Your task to perform on an android device: change alarm snooze length Image 0: 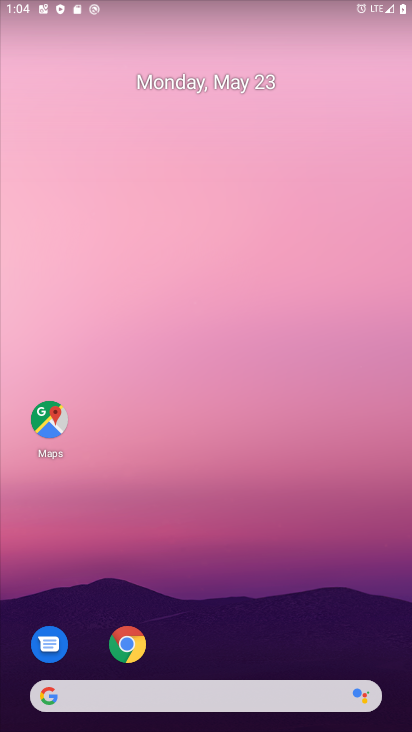
Step 0: drag from (325, 647) to (281, 130)
Your task to perform on an android device: change alarm snooze length Image 1: 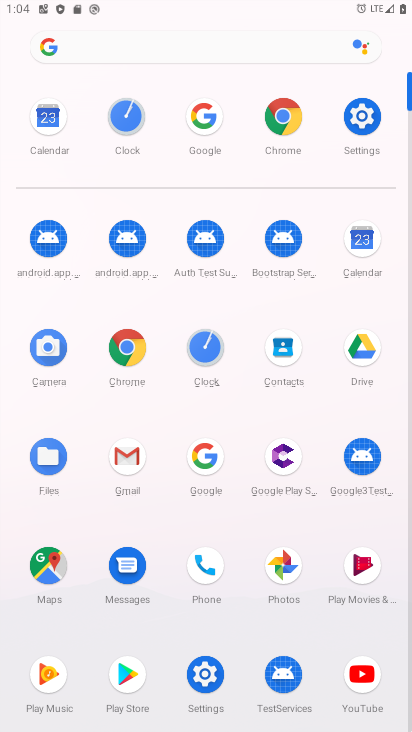
Step 1: click (206, 352)
Your task to perform on an android device: change alarm snooze length Image 2: 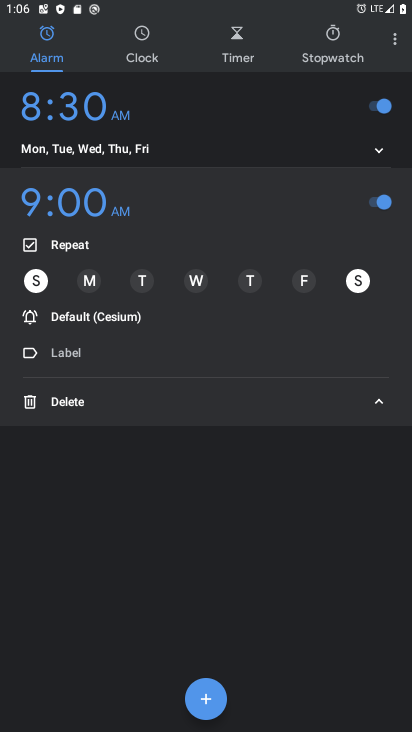
Step 2: click (394, 45)
Your task to perform on an android device: change alarm snooze length Image 3: 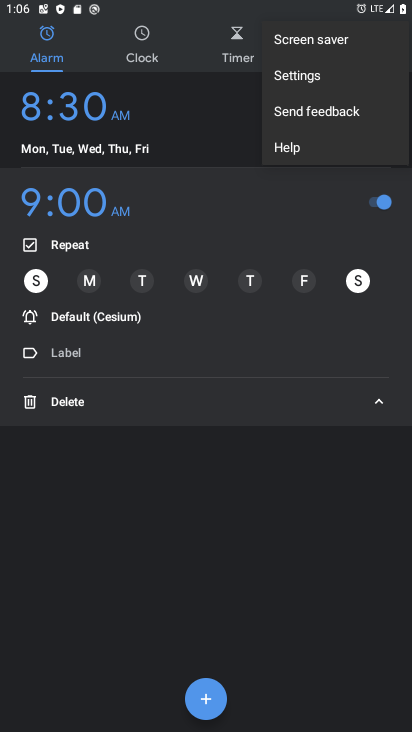
Step 3: click (322, 80)
Your task to perform on an android device: change alarm snooze length Image 4: 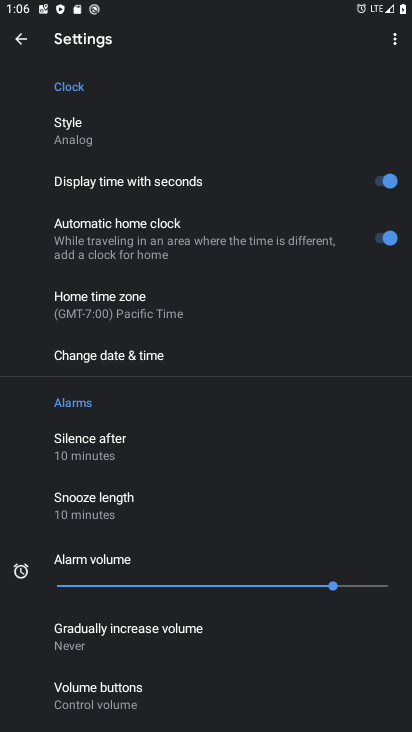
Step 4: click (146, 505)
Your task to perform on an android device: change alarm snooze length Image 5: 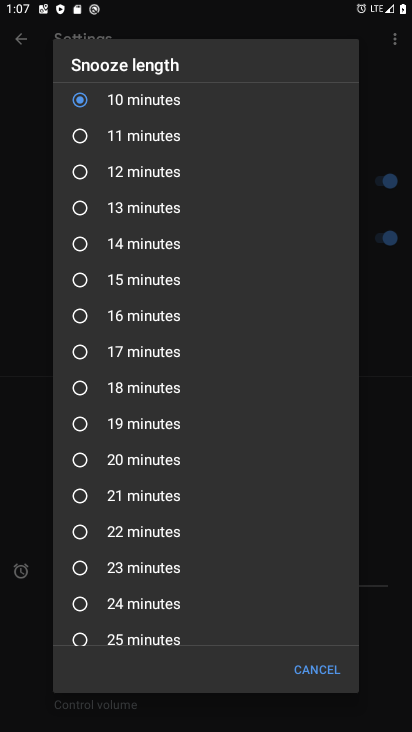
Step 5: click (98, 459)
Your task to perform on an android device: change alarm snooze length Image 6: 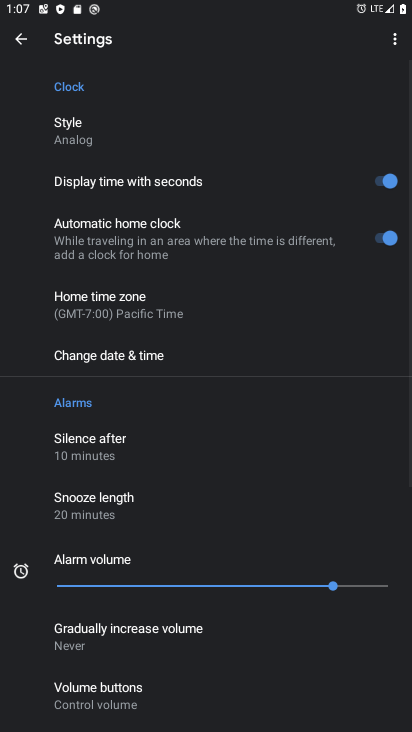
Step 6: task complete